Your task to perform on an android device: turn off notifications settings in the gmail app Image 0: 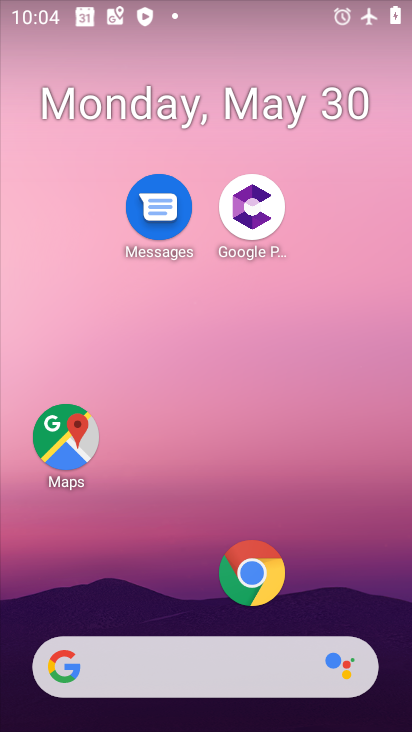
Step 0: drag from (182, 669) to (263, 190)
Your task to perform on an android device: turn off notifications settings in the gmail app Image 1: 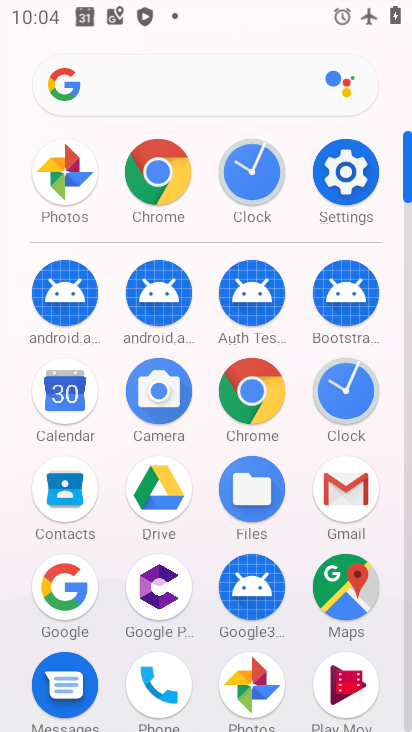
Step 1: click (343, 501)
Your task to perform on an android device: turn off notifications settings in the gmail app Image 2: 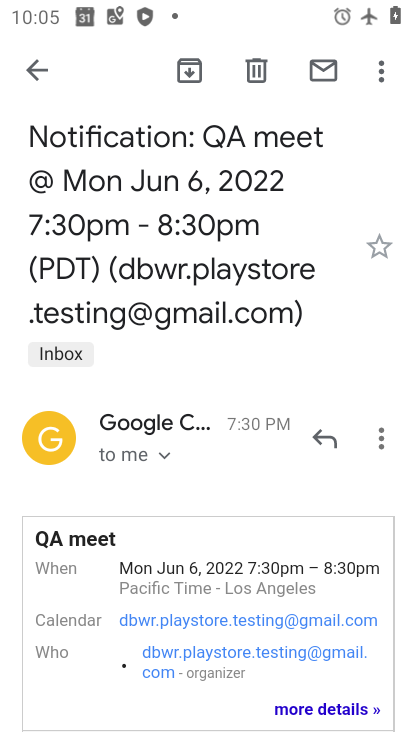
Step 2: click (35, 60)
Your task to perform on an android device: turn off notifications settings in the gmail app Image 3: 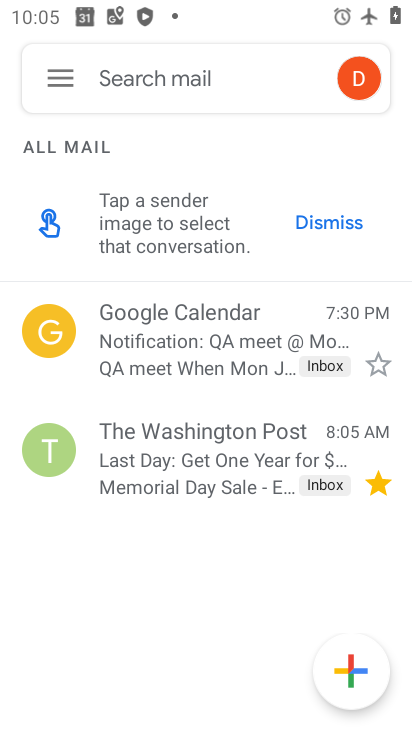
Step 3: click (58, 80)
Your task to perform on an android device: turn off notifications settings in the gmail app Image 4: 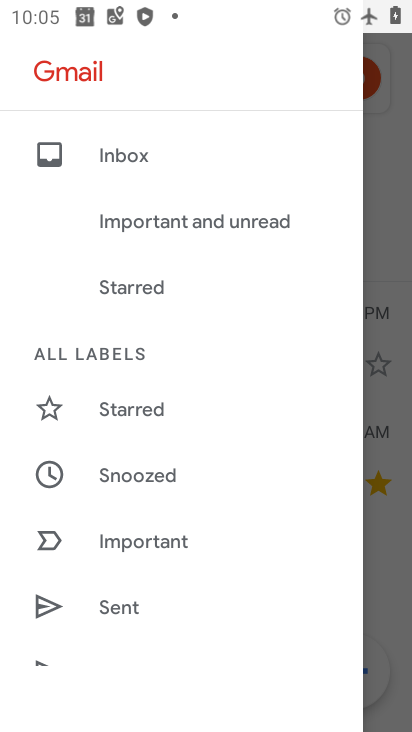
Step 4: drag from (135, 580) to (173, 139)
Your task to perform on an android device: turn off notifications settings in the gmail app Image 5: 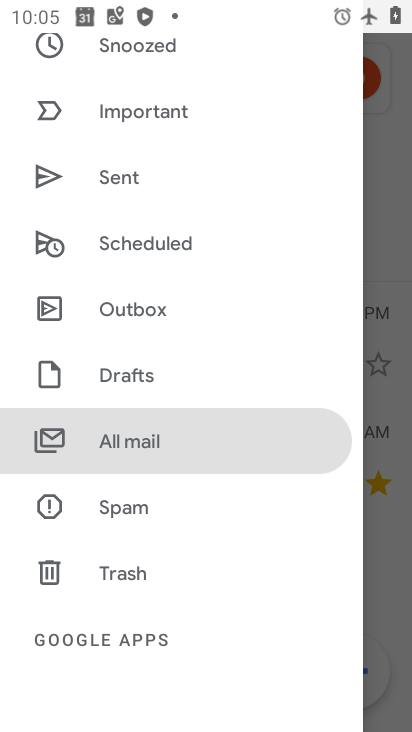
Step 5: drag from (135, 605) to (196, 144)
Your task to perform on an android device: turn off notifications settings in the gmail app Image 6: 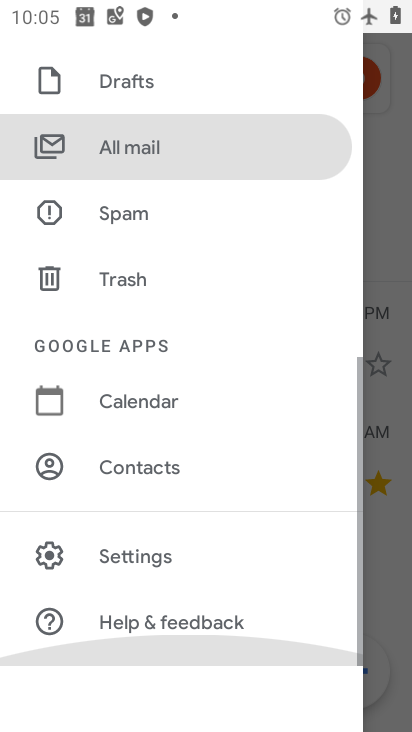
Step 6: click (196, 142)
Your task to perform on an android device: turn off notifications settings in the gmail app Image 7: 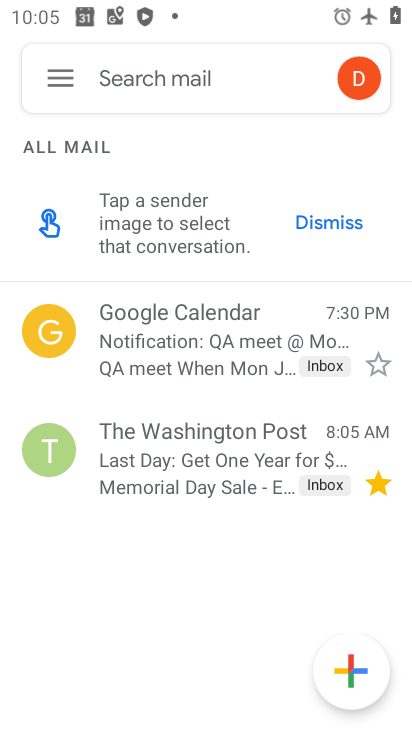
Step 7: click (49, 61)
Your task to perform on an android device: turn off notifications settings in the gmail app Image 8: 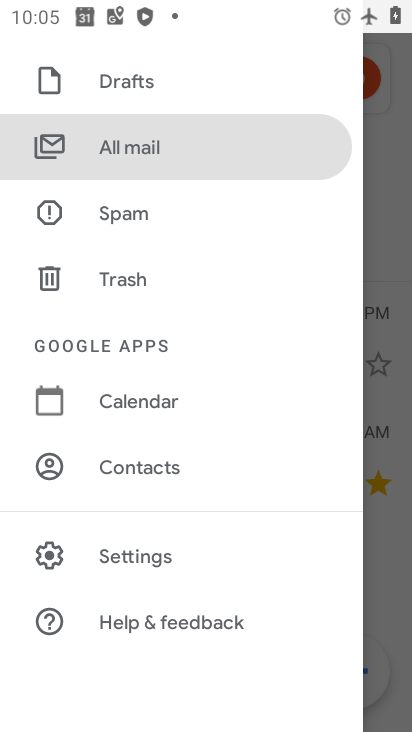
Step 8: click (124, 551)
Your task to perform on an android device: turn off notifications settings in the gmail app Image 9: 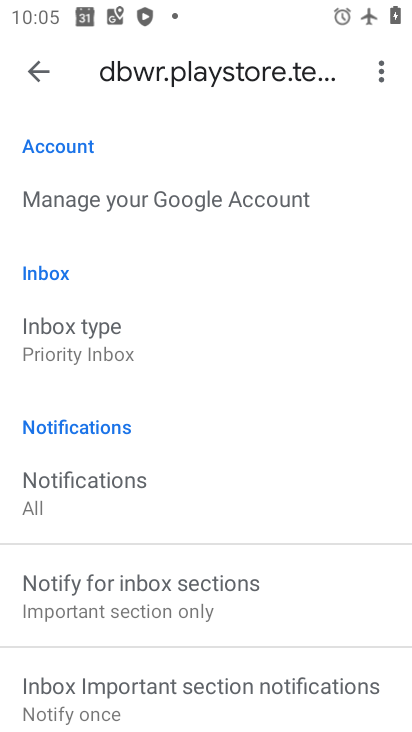
Step 9: click (49, 75)
Your task to perform on an android device: turn off notifications settings in the gmail app Image 10: 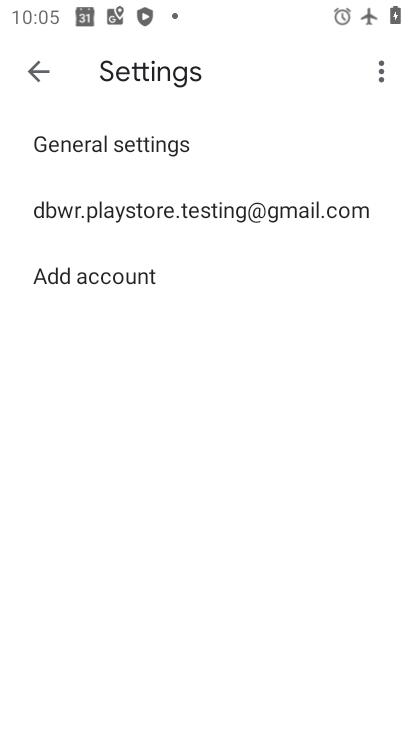
Step 10: click (202, 151)
Your task to perform on an android device: turn off notifications settings in the gmail app Image 11: 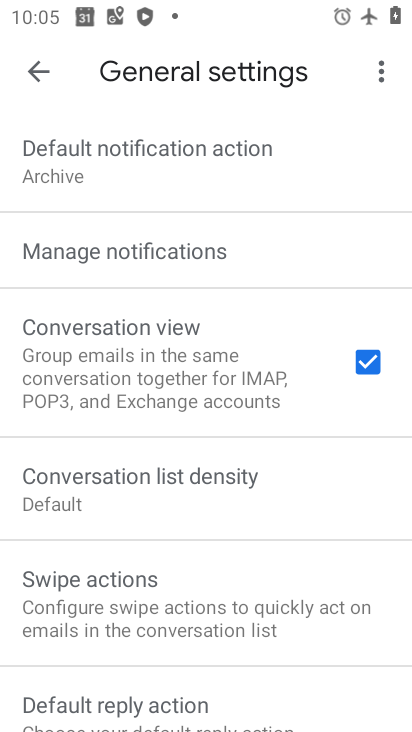
Step 11: click (269, 263)
Your task to perform on an android device: turn off notifications settings in the gmail app Image 12: 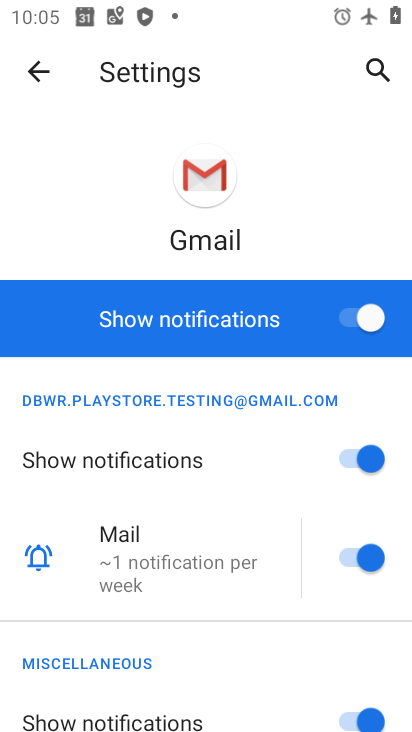
Step 12: click (347, 335)
Your task to perform on an android device: turn off notifications settings in the gmail app Image 13: 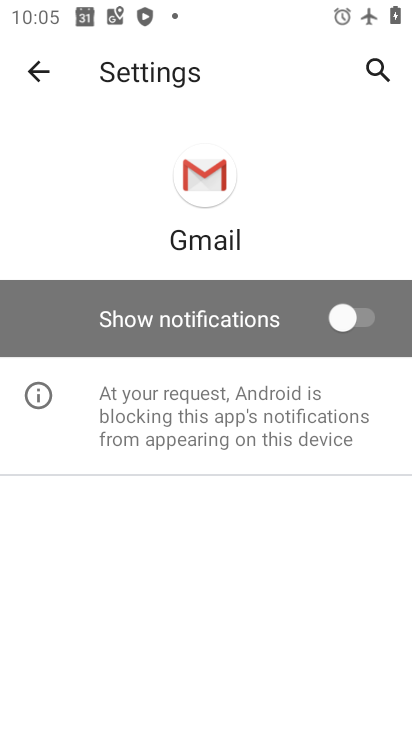
Step 13: task complete